Your task to perform on an android device: turn on translation in the chrome app Image 0: 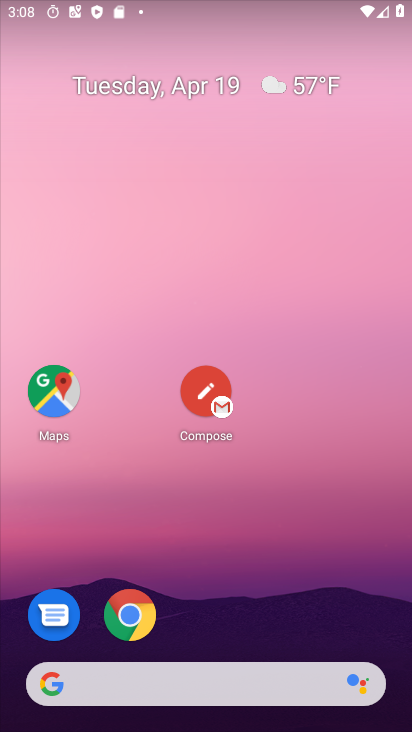
Step 0: drag from (282, 653) to (311, 14)
Your task to perform on an android device: turn on translation in the chrome app Image 1: 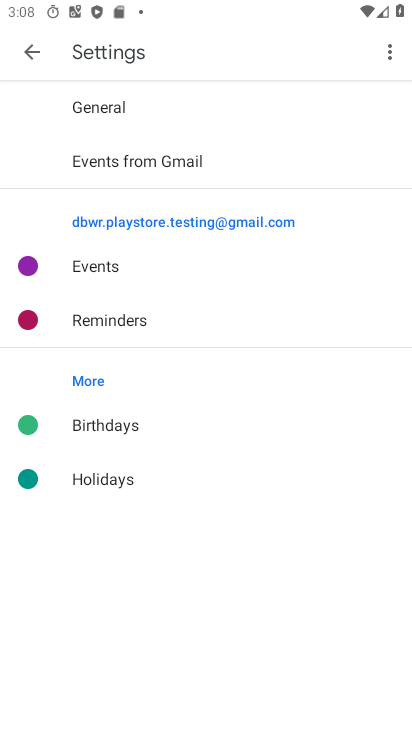
Step 1: press home button
Your task to perform on an android device: turn on translation in the chrome app Image 2: 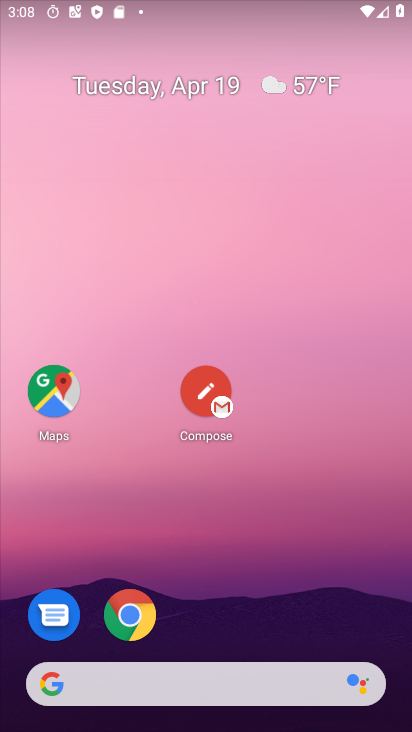
Step 2: drag from (269, 532) to (235, 0)
Your task to perform on an android device: turn on translation in the chrome app Image 3: 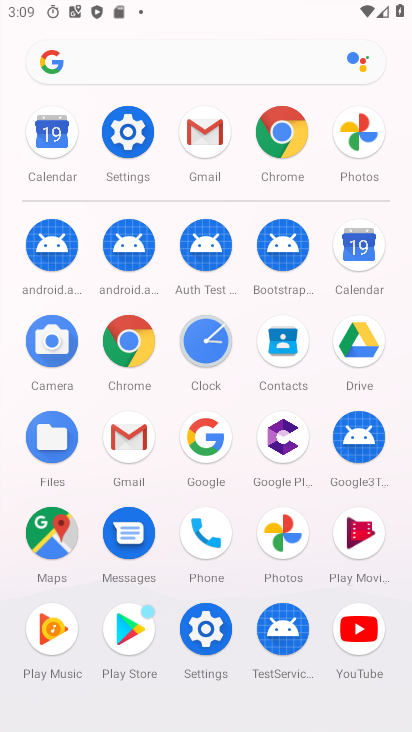
Step 3: click (131, 355)
Your task to perform on an android device: turn on translation in the chrome app Image 4: 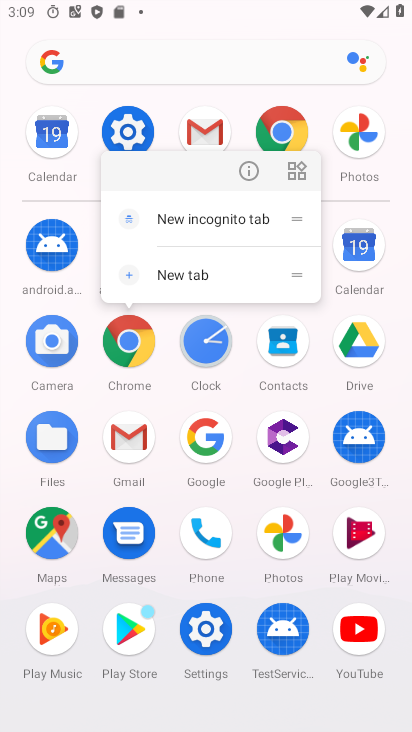
Step 4: click (128, 360)
Your task to perform on an android device: turn on translation in the chrome app Image 5: 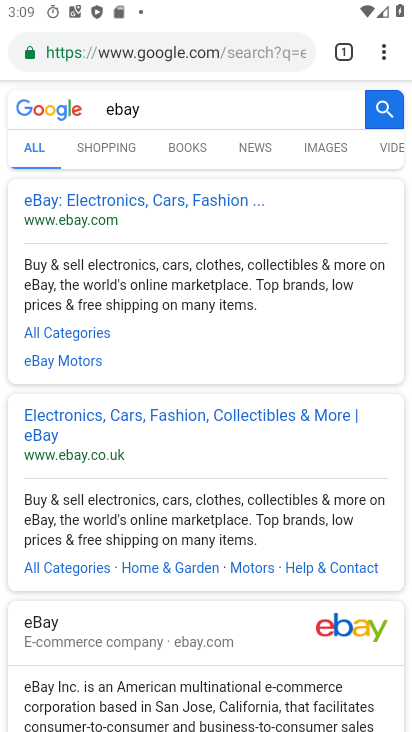
Step 5: click (394, 56)
Your task to perform on an android device: turn on translation in the chrome app Image 6: 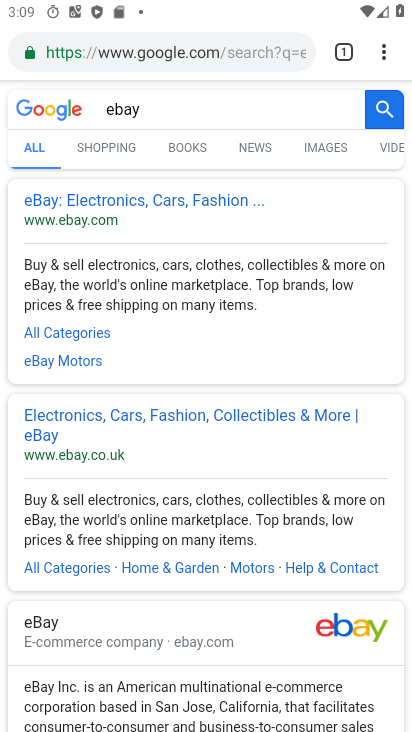
Step 6: click (379, 49)
Your task to perform on an android device: turn on translation in the chrome app Image 7: 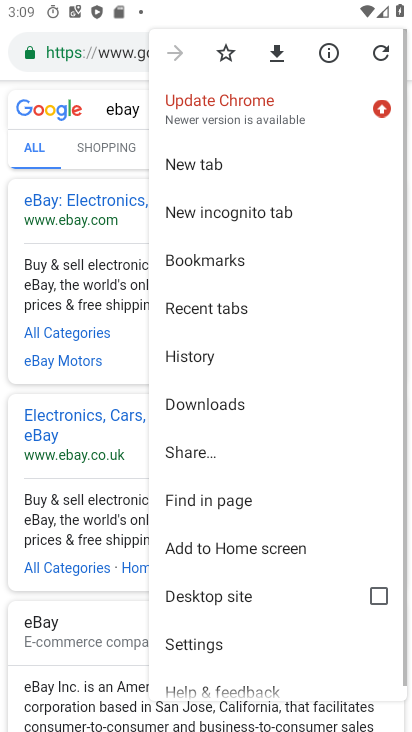
Step 7: drag from (282, 481) to (269, 37)
Your task to perform on an android device: turn on translation in the chrome app Image 8: 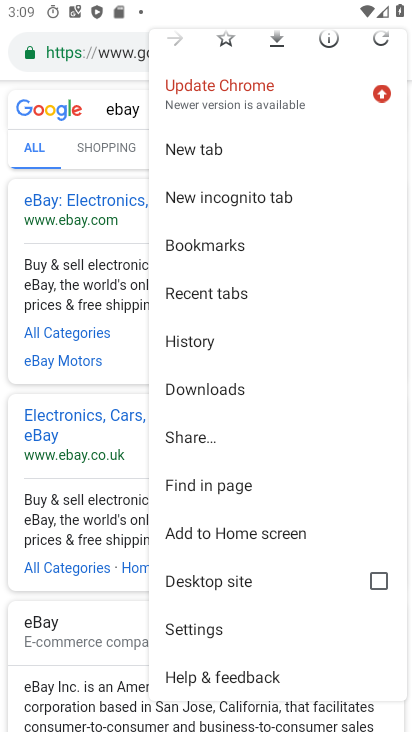
Step 8: click (212, 631)
Your task to perform on an android device: turn on translation in the chrome app Image 9: 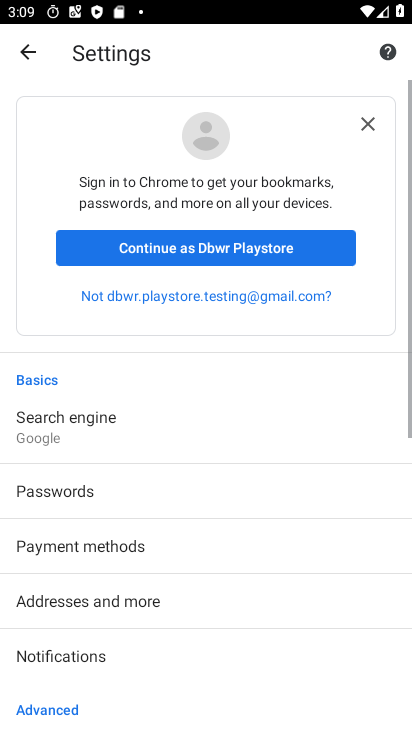
Step 9: drag from (183, 590) to (179, 141)
Your task to perform on an android device: turn on translation in the chrome app Image 10: 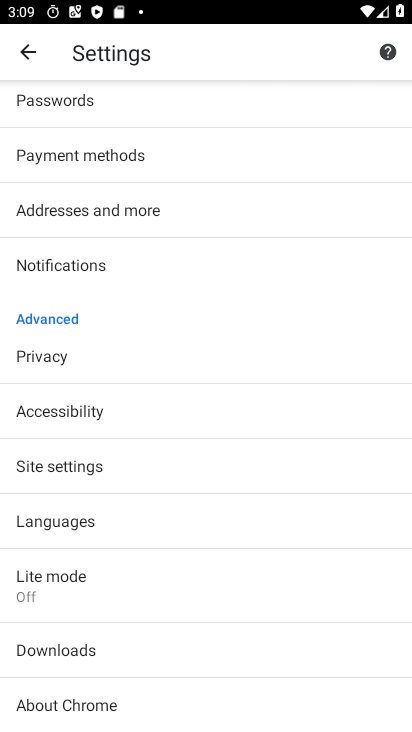
Step 10: click (122, 523)
Your task to perform on an android device: turn on translation in the chrome app Image 11: 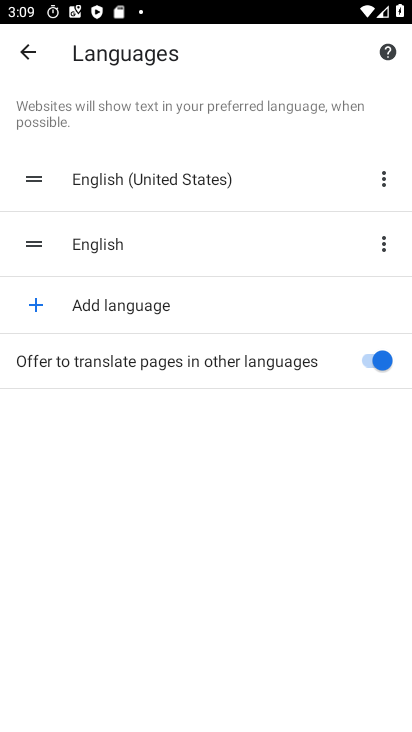
Step 11: task complete